Your task to perform on an android device: Open Android settings Image 0: 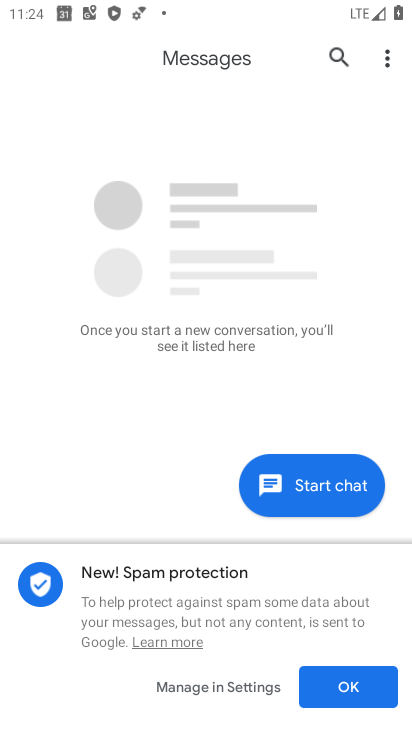
Step 0: press home button
Your task to perform on an android device: Open Android settings Image 1: 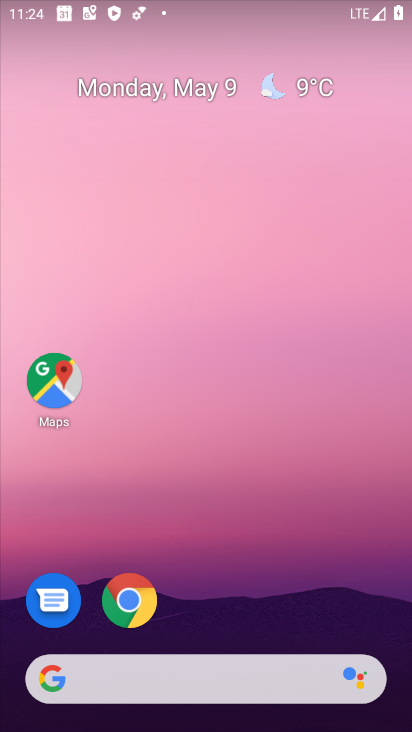
Step 1: drag from (322, 535) to (320, 245)
Your task to perform on an android device: Open Android settings Image 2: 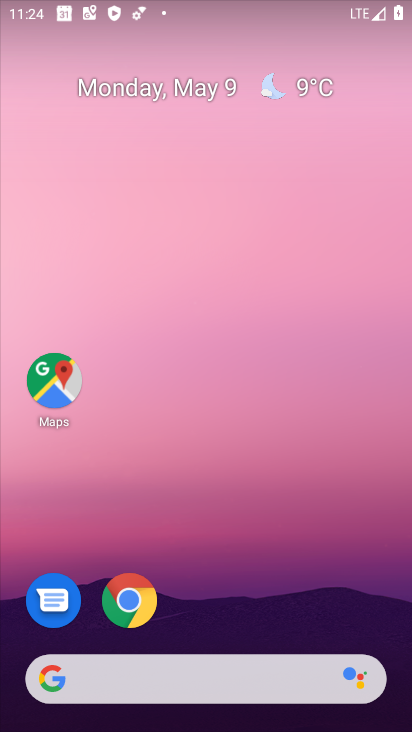
Step 2: drag from (328, 535) to (342, 164)
Your task to perform on an android device: Open Android settings Image 3: 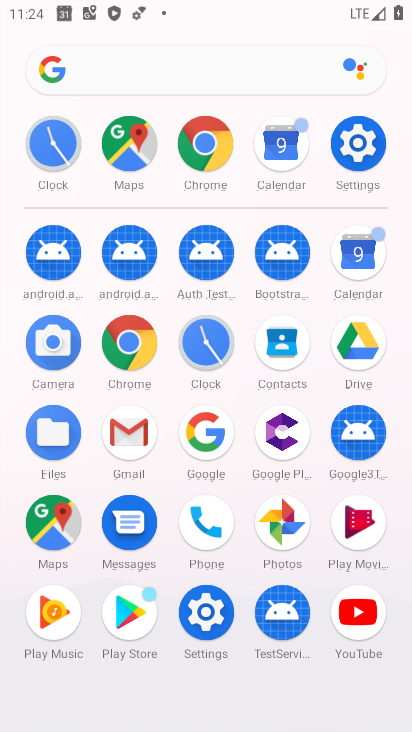
Step 3: click (362, 153)
Your task to perform on an android device: Open Android settings Image 4: 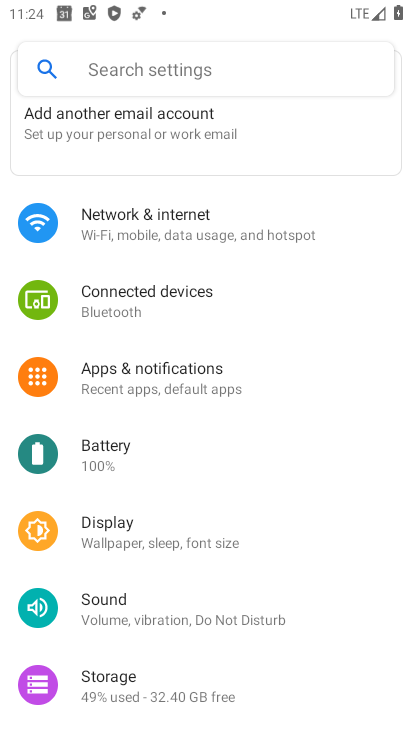
Step 4: task complete